Your task to perform on an android device: Show me the alarms in the clock app Image 0: 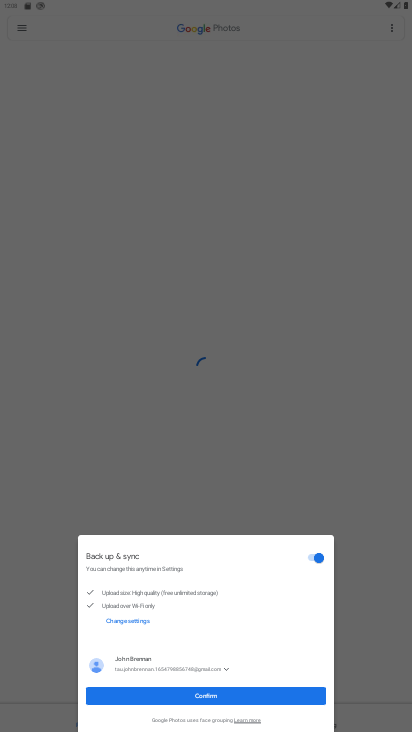
Step 0: drag from (270, 87) to (406, 503)
Your task to perform on an android device: Show me the alarms in the clock app Image 1: 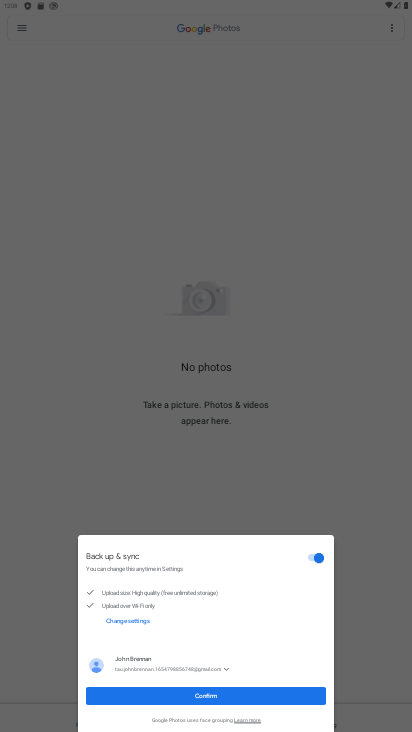
Step 1: press home button
Your task to perform on an android device: Show me the alarms in the clock app Image 2: 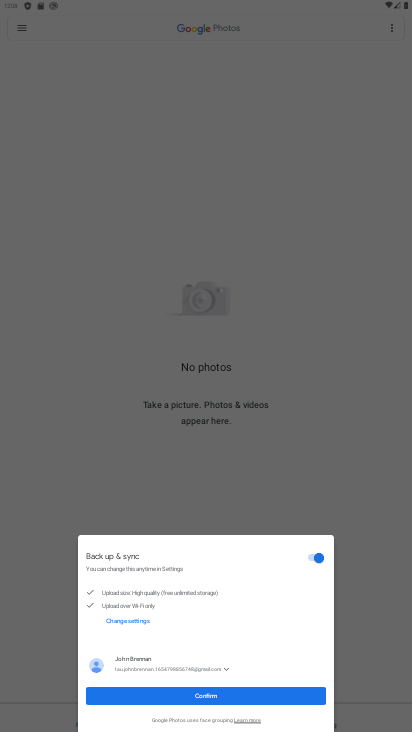
Step 2: drag from (406, 503) to (320, 228)
Your task to perform on an android device: Show me the alarms in the clock app Image 3: 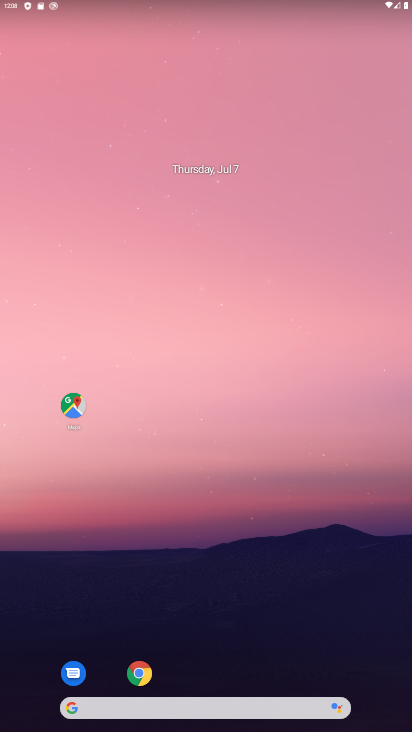
Step 3: drag from (225, 661) to (175, 24)
Your task to perform on an android device: Show me the alarms in the clock app Image 4: 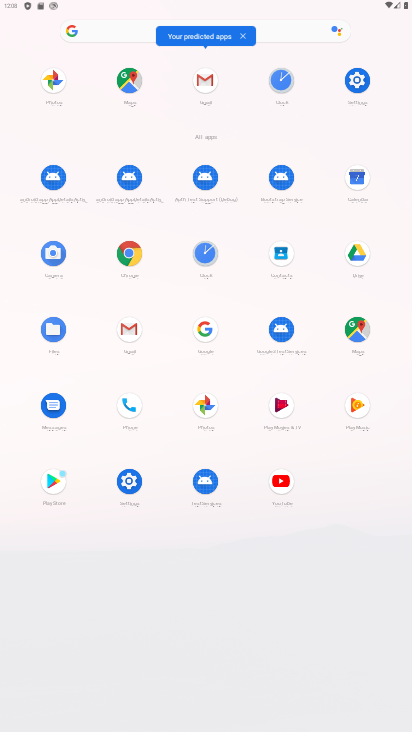
Step 4: click (288, 100)
Your task to perform on an android device: Show me the alarms in the clock app Image 5: 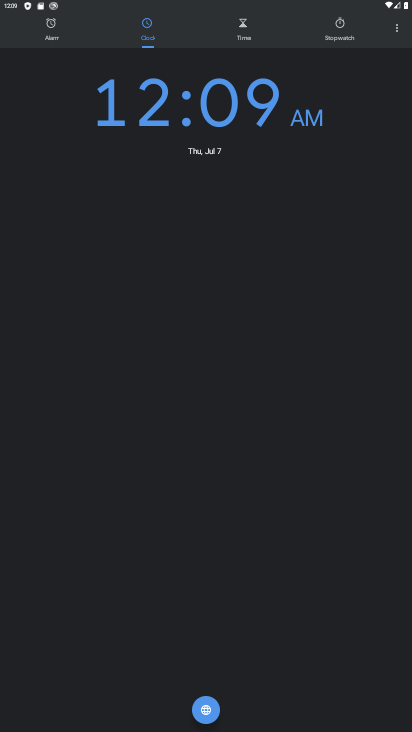
Step 5: press home button
Your task to perform on an android device: Show me the alarms in the clock app Image 6: 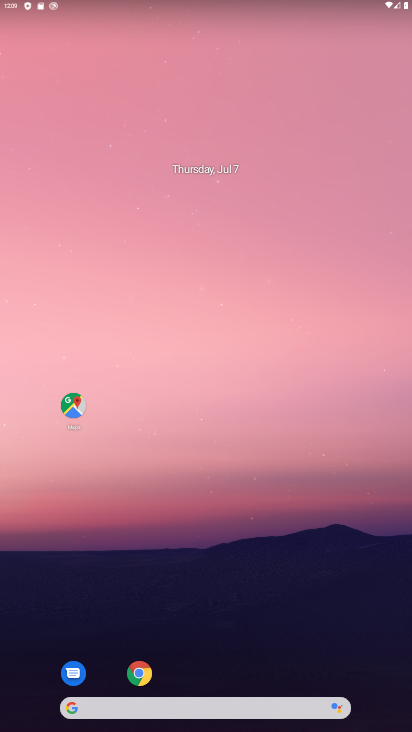
Step 6: drag from (212, 726) to (212, 90)
Your task to perform on an android device: Show me the alarms in the clock app Image 7: 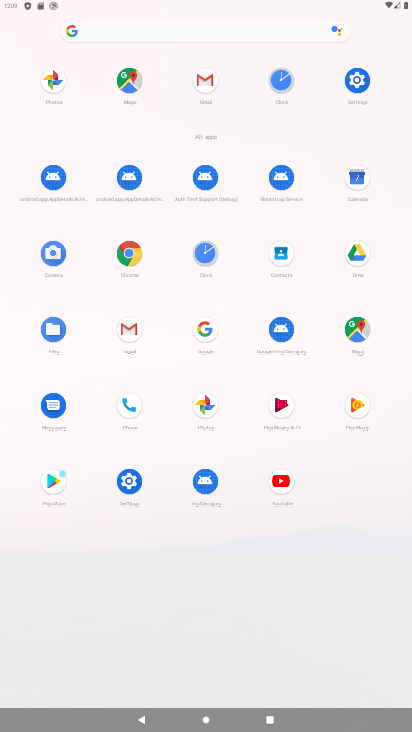
Step 7: click (215, 264)
Your task to perform on an android device: Show me the alarms in the clock app Image 8: 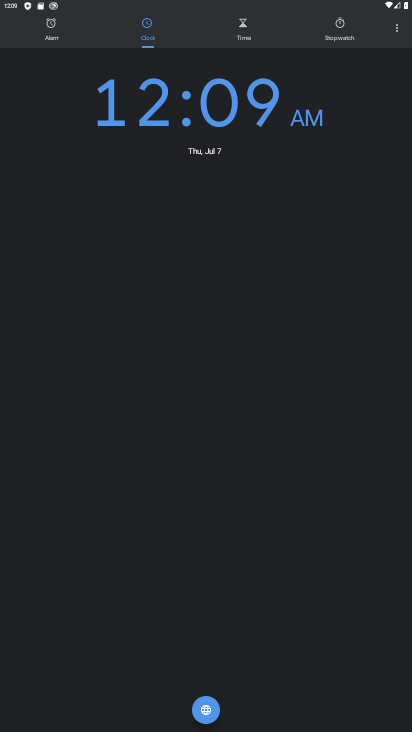
Step 8: click (64, 36)
Your task to perform on an android device: Show me the alarms in the clock app Image 9: 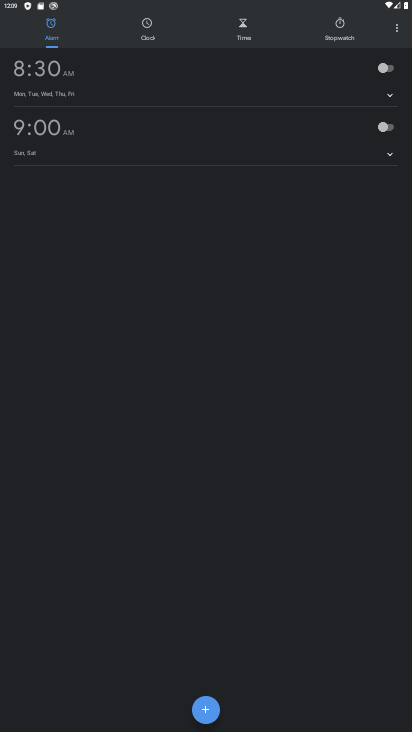
Step 9: press home button
Your task to perform on an android device: Show me the alarms in the clock app Image 10: 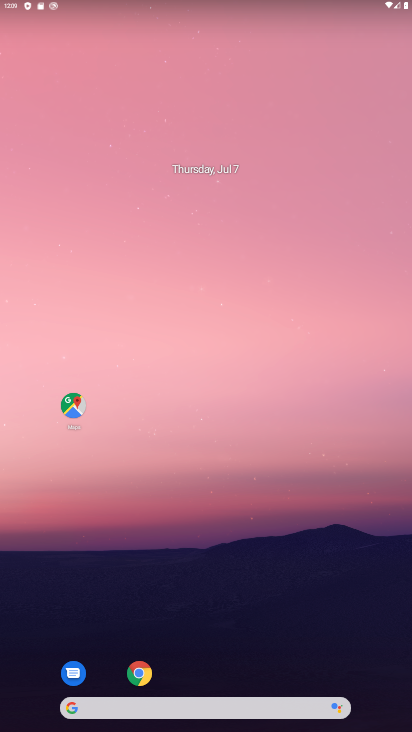
Step 10: drag from (212, 671) to (184, 172)
Your task to perform on an android device: Show me the alarms in the clock app Image 11: 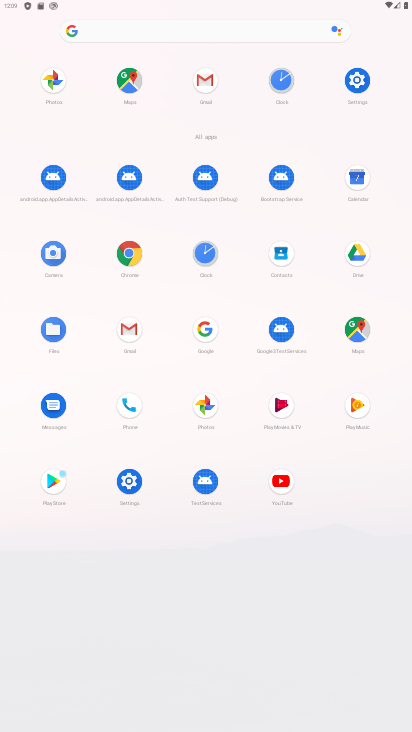
Step 11: click (188, 253)
Your task to perform on an android device: Show me the alarms in the clock app Image 12: 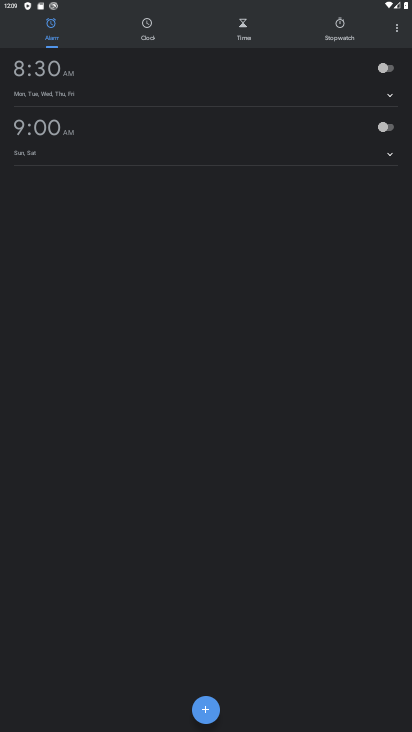
Step 12: click (57, 45)
Your task to perform on an android device: Show me the alarms in the clock app Image 13: 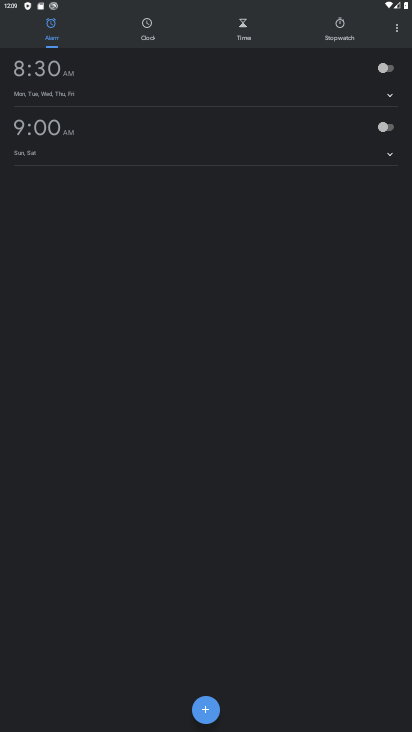
Step 13: task complete